Your task to perform on an android device: set default search engine in the chrome app Image 0: 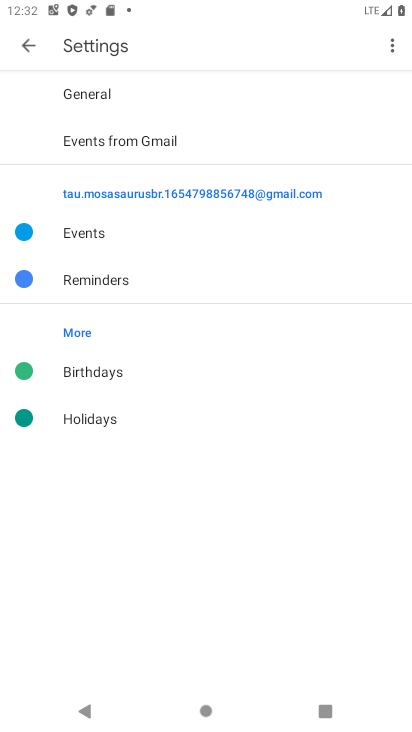
Step 0: press home button
Your task to perform on an android device: set default search engine in the chrome app Image 1: 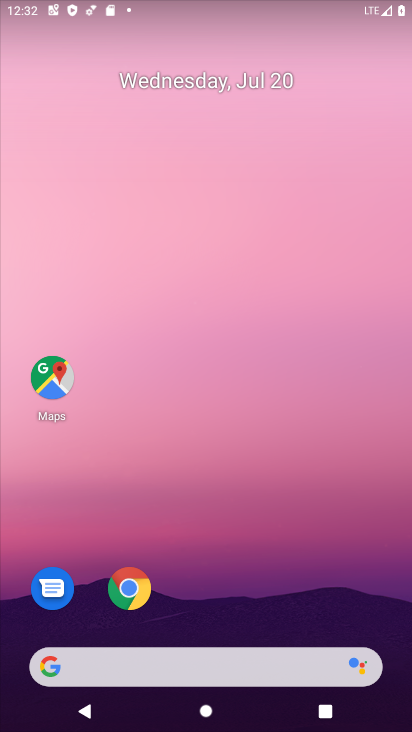
Step 1: click (129, 593)
Your task to perform on an android device: set default search engine in the chrome app Image 2: 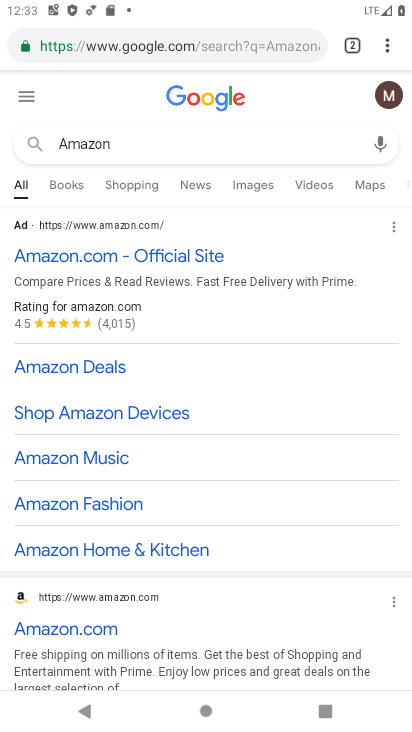
Step 2: click (387, 44)
Your task to perform on an android device: set default search engine in the chrome app Image 3: 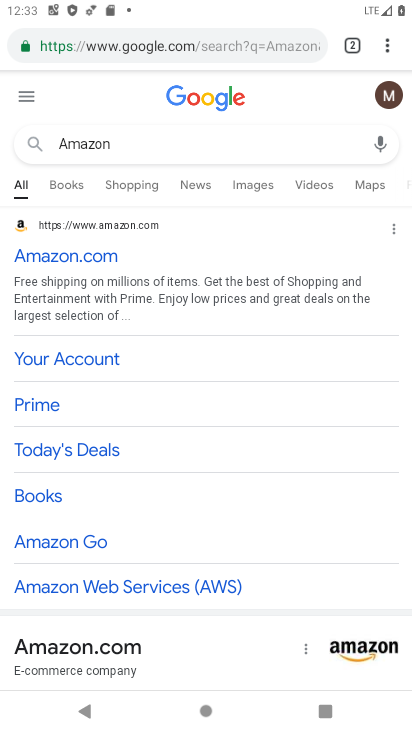
Step 3: click (387, 44)
Your task to perform on an android device: set default search engine in the chrome app Image 4: 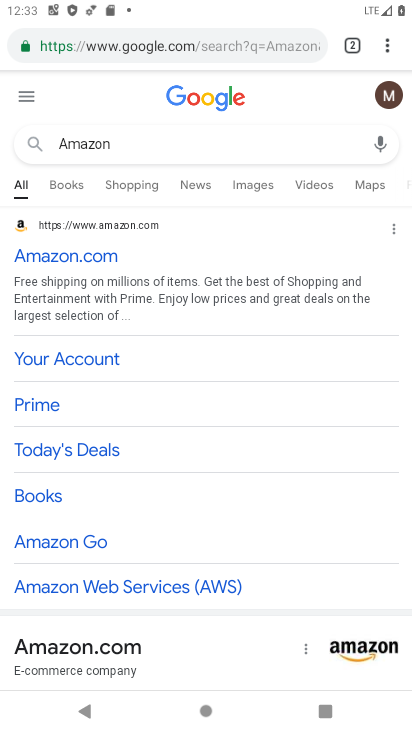
Step 4: click (387, 44)
Your task to perform on an android device: set default search engine in the chrome app Image 5: 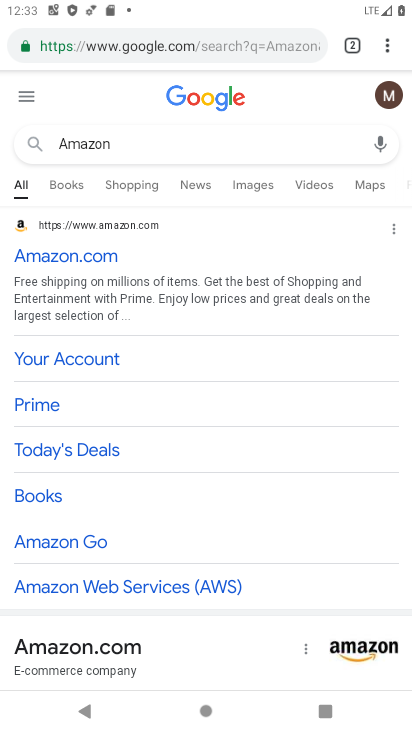
Step 5: click (389, 45)
Your task to perform on an android device: set default search engine in the chrome app Image 6: 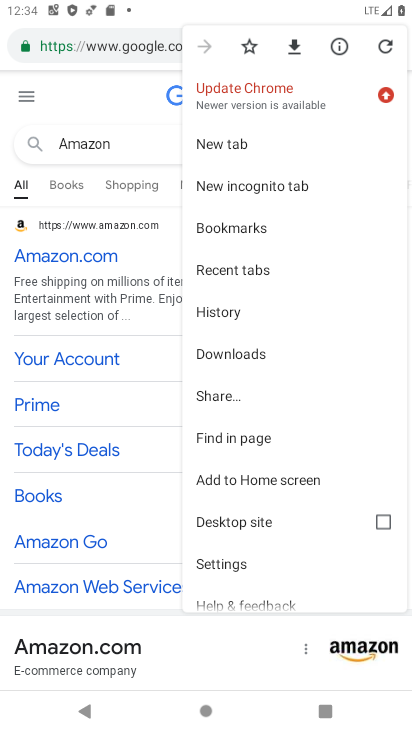
Step 6: click (220, 554)
Your task to perform on an android device: set default search engine in the chrome app Image 7: 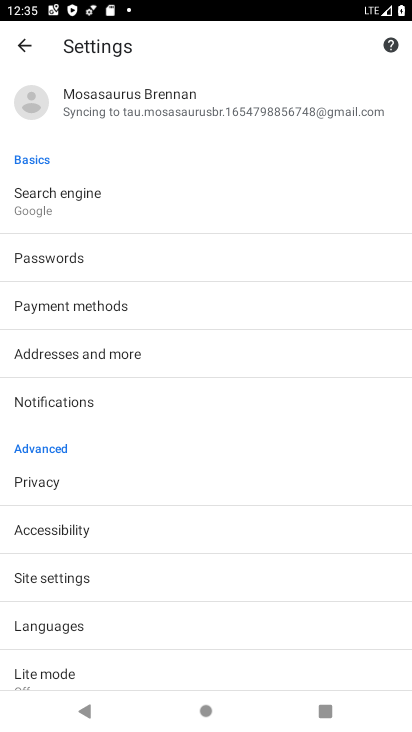
Step 7: click (73, 198)
Your task to perform on an android device: set default search engine in the chrome app Image 8: 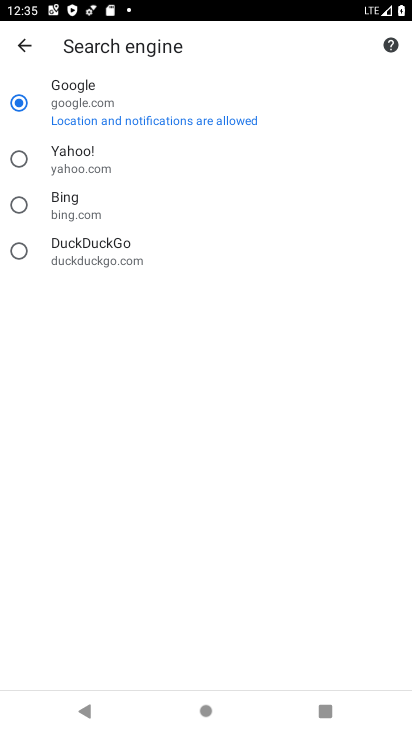
Step 8: task complete